Your task to perform on an android device: turn on notifications settings in the gmail app Image 0: 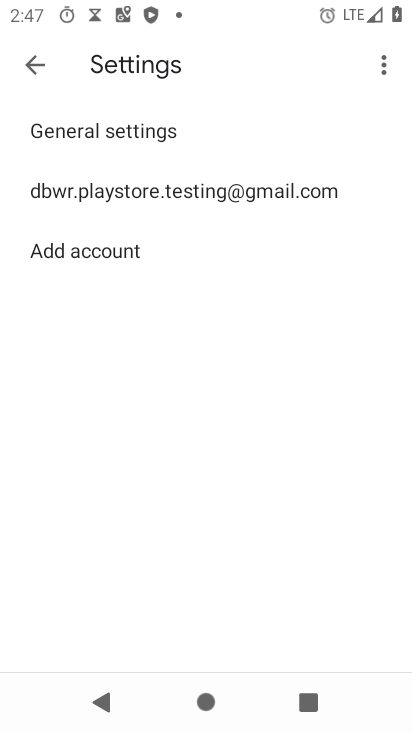
Step 0: press back button
Your task to perform on an android device: turn on notifications settings in the gmail app Image 1: 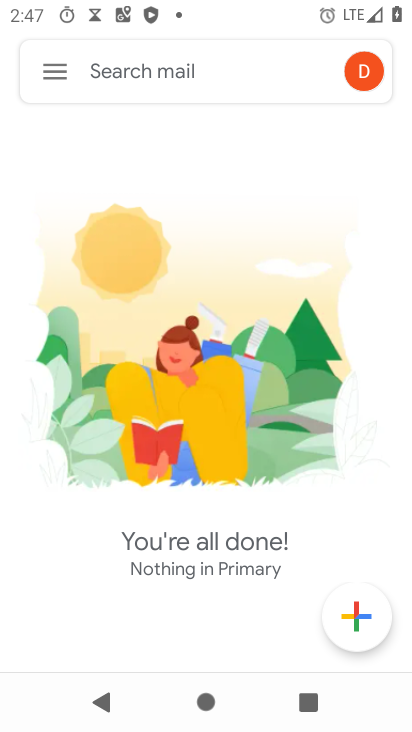
Step 1: click (65, 71)
Your task to perform on an android device: turn on notifications settings in the gmail app Image 2: 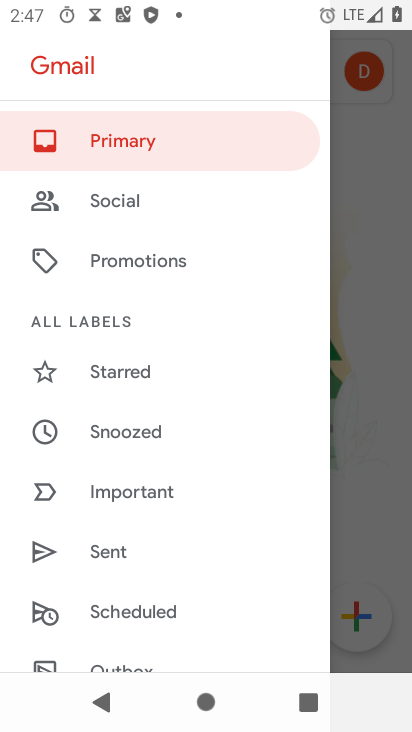
Step 2: drag from (116, 411) to (150, 332)
Your task to perform on an android device: turn on notifications settings in the gmail app Image 3: 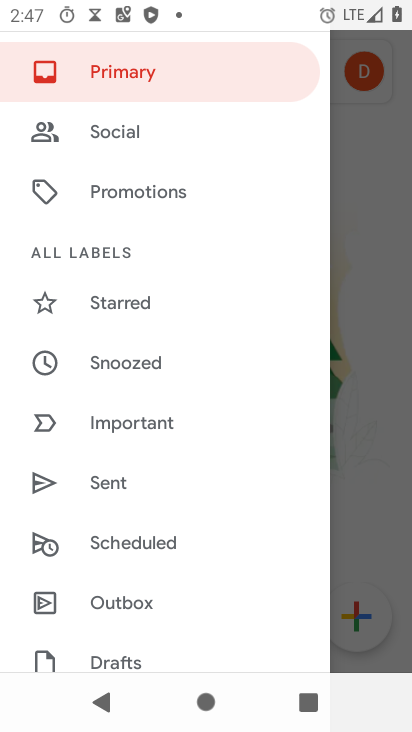
Step 3: drag from (117, 469) to (159, 390)
Your task to perform on an android device: turn on notifications settings in the gmail app Image 4: 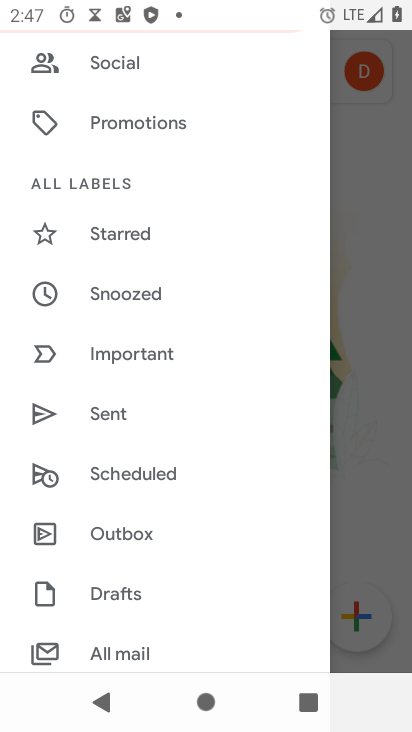
Step 4: drag from (114, 505) to (146, 422)
Your task to perform on an android device: turn on notifications settings in the gmail app Image 5: 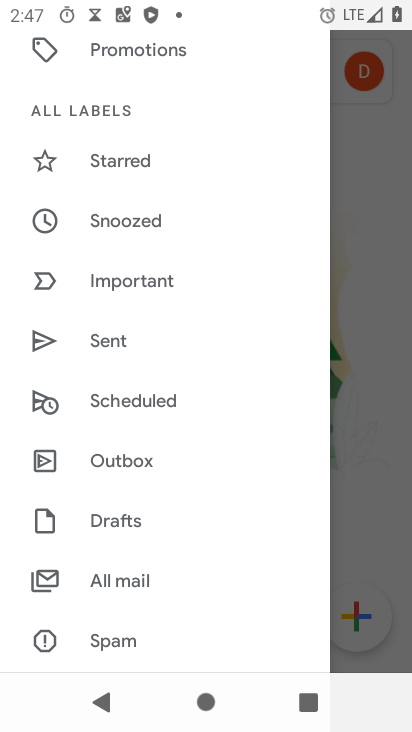
Step 5: drag from (122, 488) to (165, 408)
Your task to perform on an android device: turn on notifications settings in the gmail app Image 6: 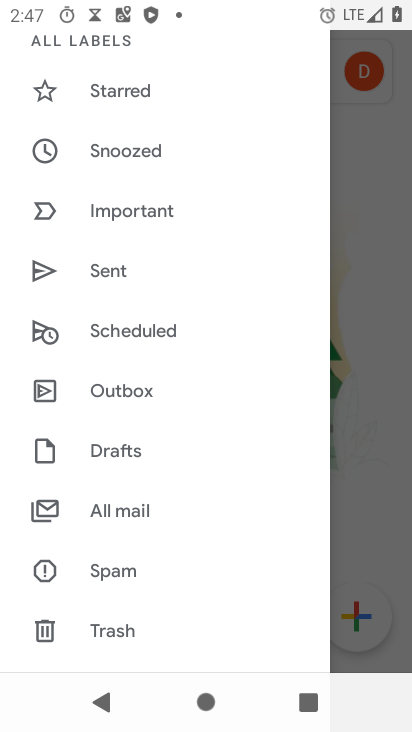
Step 6: drag from (116, 471) to (138, 393)
Your task to perform on an android device: turn on notifications settings in the gmail app Image 7: 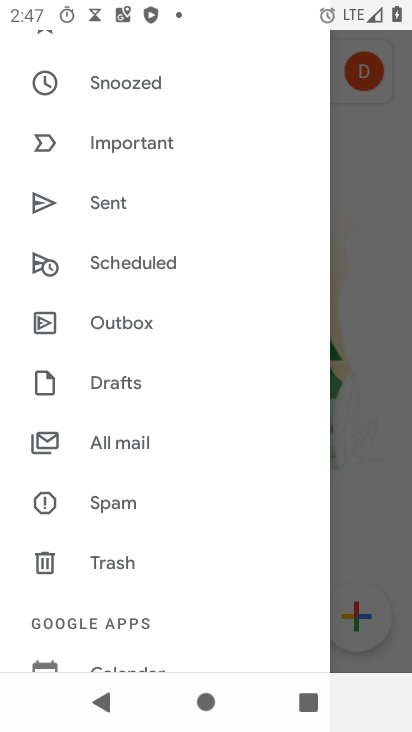
Step 7: drag from (115, 483) to (156, 409)
Your task to perform on an android device: turn on notifications settings in the gmail app Image 8: 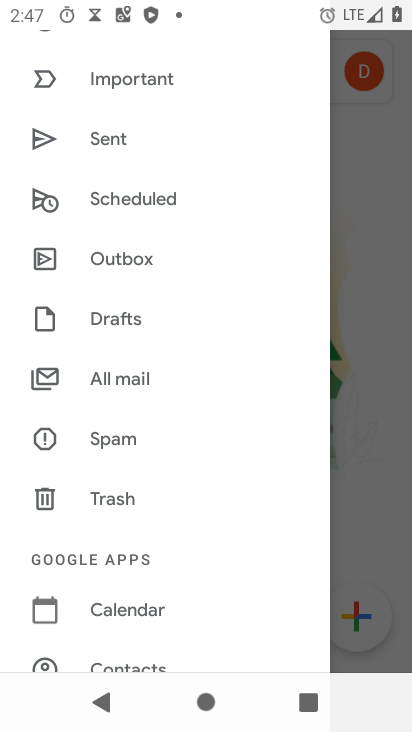
Step 8: drag from (101, 533) to (137, 439)
Your task to perform on an android device: turn on notifications settings in the gmail app Image 9: 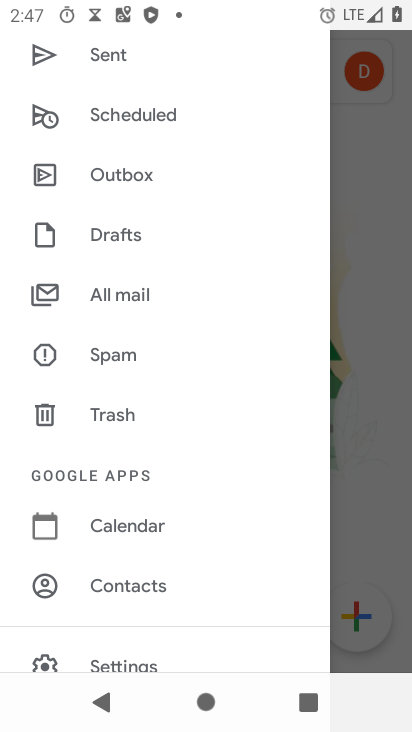
Step 9: drag from (114, 548) to (186, 443)
Your task to perform on an android device: turn on notifications settings in the gmail app Image 10: 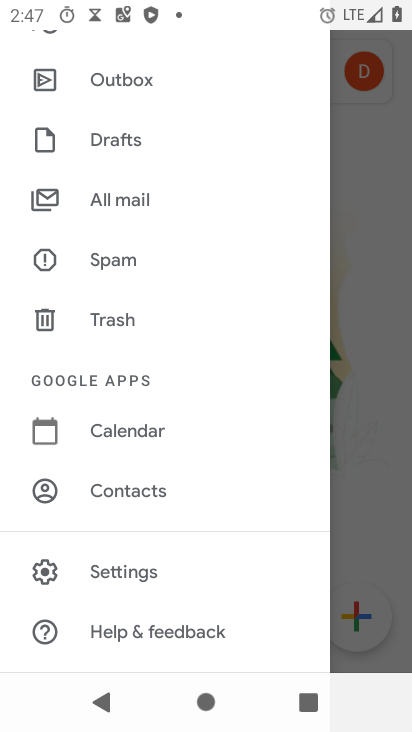
Step 10: click (123, 572)
Your task to perform on an android device: turn on notifications settings in the gmail app Image 11: 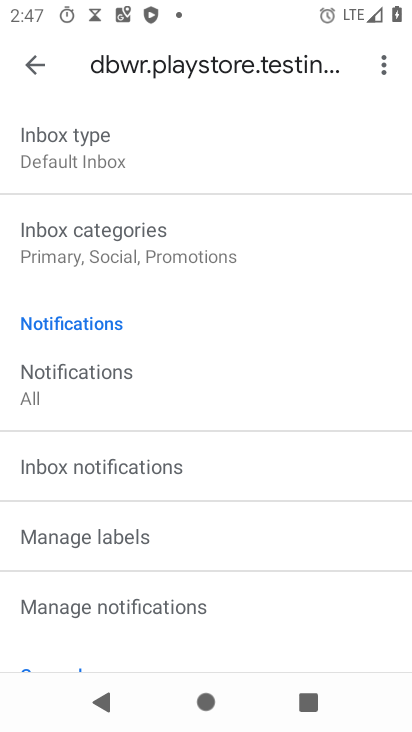
Step 11: drag from (118, 401) to (174, 330)
Your task to perform on an android device: turn on notifications settings in the gmail app Image 12: 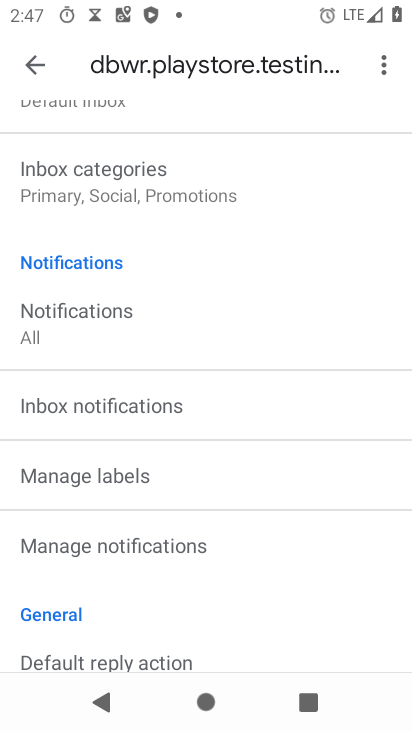
Step 12: drag from (87, 512) to (131, 450)
Your task to perform on an android device: turn on notifications settings in the gmail app Image 13: 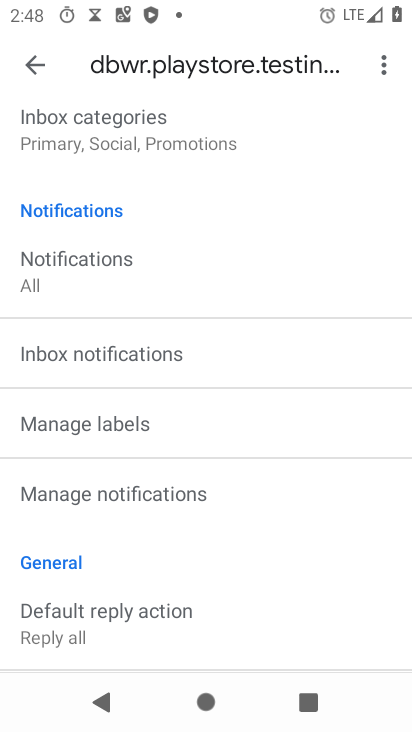
Step 13: click (126, 489)
Your task to perform on an android device: turn on notifications settings in the gmail app Image 14: 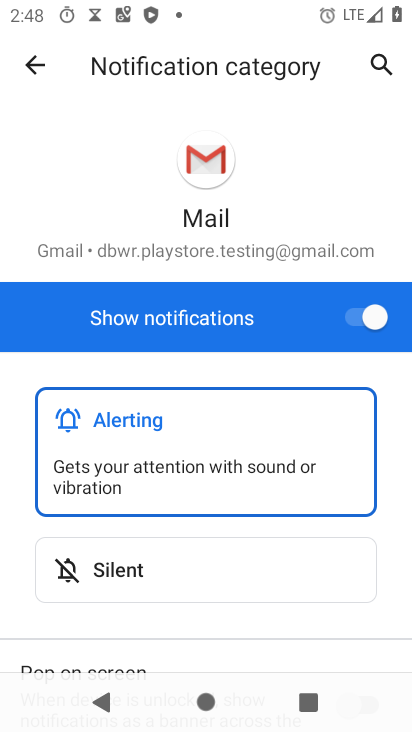
Step 14: click (375, 322)
Your task to perform on an android device: turn on notifications settings in the gmail app Image 15: 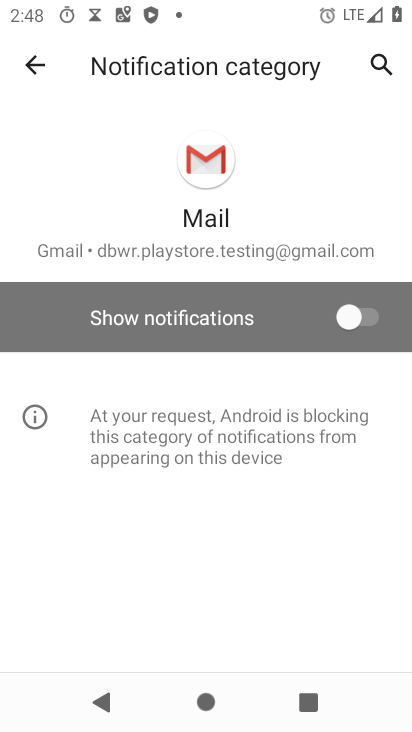
Step 15: click (370, 320)
Your task to perform on an android device: turn on notifications settings in the gmail app Image 16: 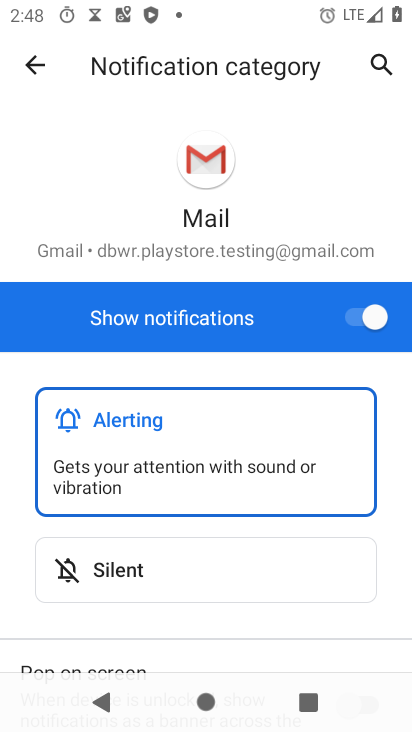
Step 16: task complete